Your task to perform on an android device: visit the assistant section in the google photos Image 0: 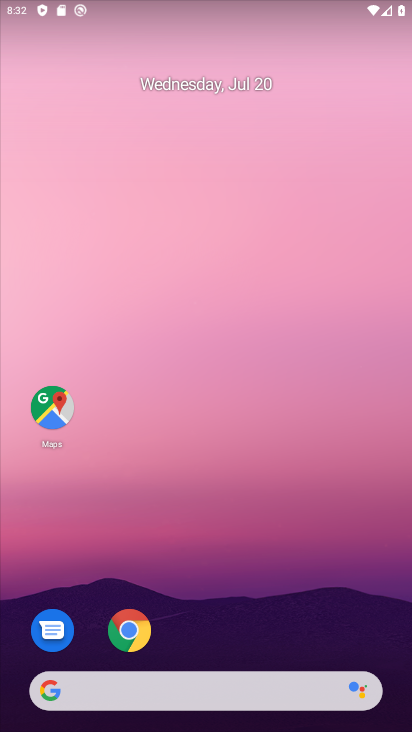
Step 0: drag from (256, 521) to (278, 142)
Your task to perform on an android device: visit the assistant section in the google photos Image 1: 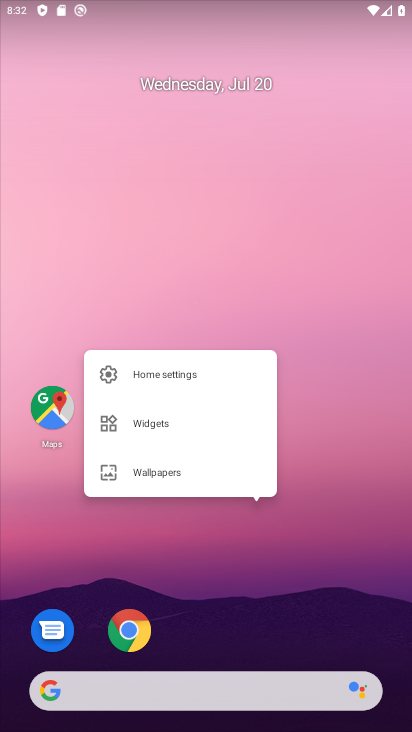
Step 1: click (363, 230)
Your task to perform on an android device: visit the assistant section in the google photos Image 2: 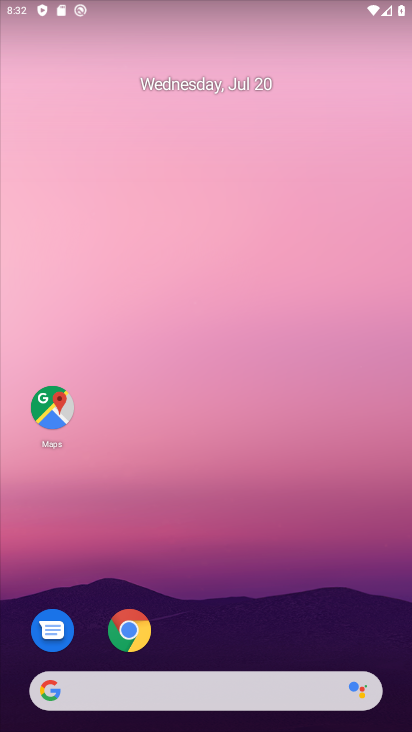
Step 2: drag from (281, 531) to (278, 256)
Your task to perform on an android device: visit the assistant section in the google photos Image 3: 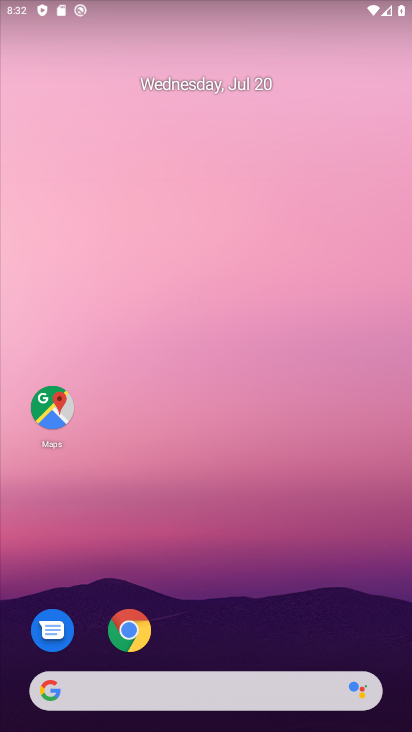
Step 3: drag from (273, 627) to (273, 450)
Your task to perform on an android device: visit the assistant section in the google photos Image 4: 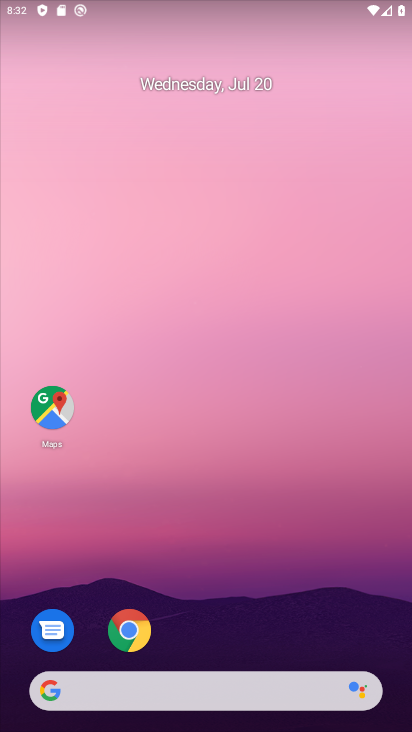
Step 4: drag from (267, 532) to (112, 7)
Your task to perform on an android device: visit the assistant section in the google photos Image 5: 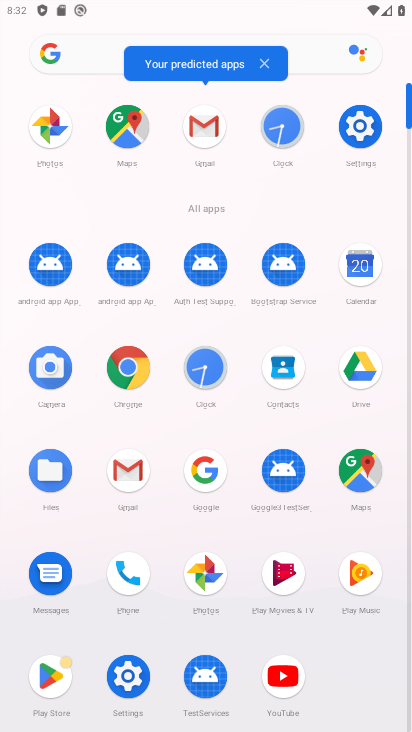
Step 5: click (55, 121)
Your task to perform on an android device: visit the assistant section in the google photos Image 6: 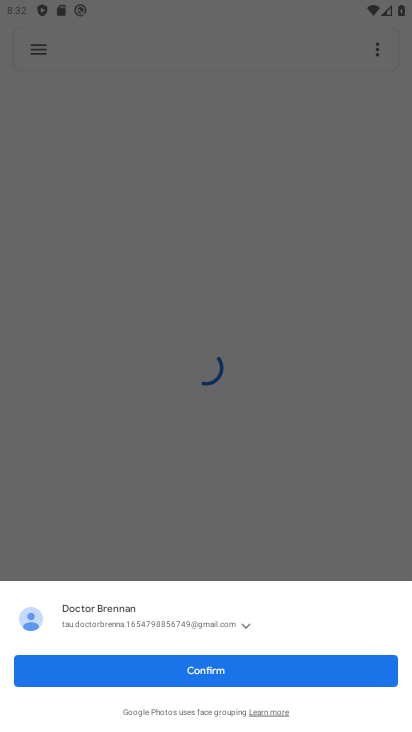
Step 6: click (264, 725)
Your task to perform on an android device: visit the assistant section in the google photos Image 7: 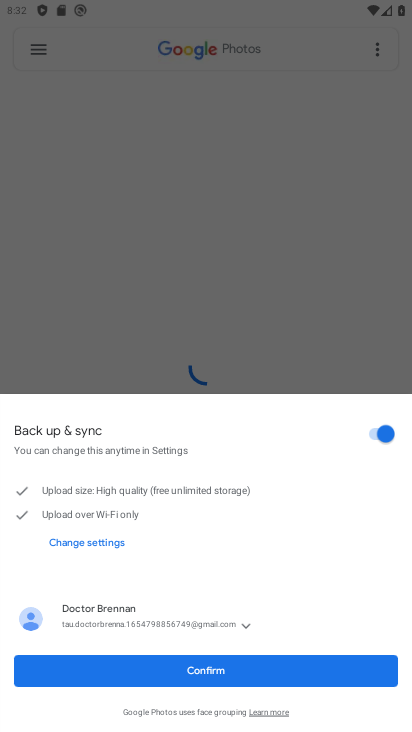
Step 7: click (297, 690)
Your task to perform on an android device: visit the assistant section in the google photos Image 8: 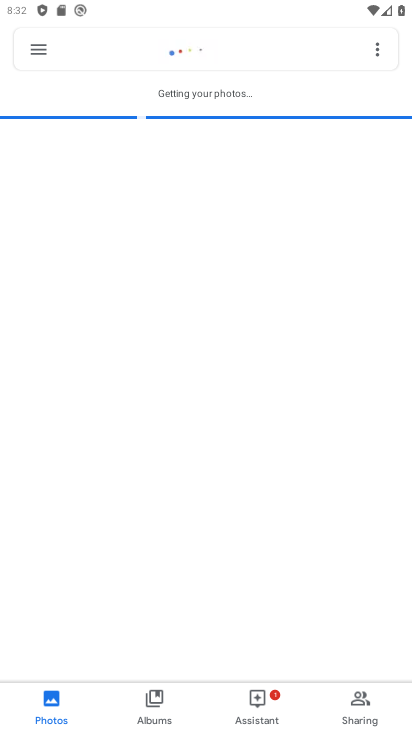
Step 8: click (265, 702)
Your task to perform on an android device: visit the assistant section in the google photos Image 9: 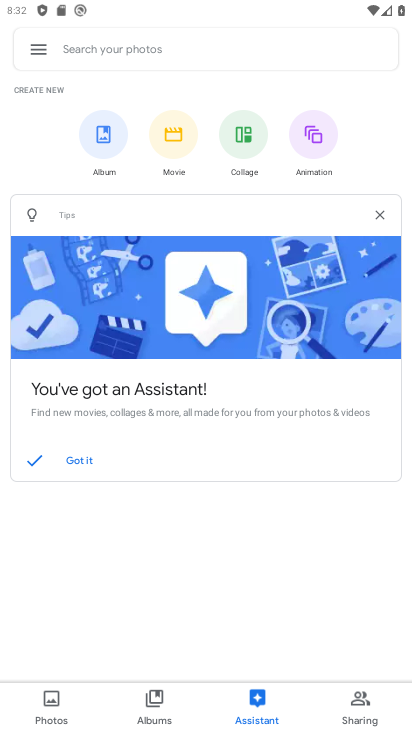
Step 9: task complete